Your task to perform on an android device: check battery use Image 0: 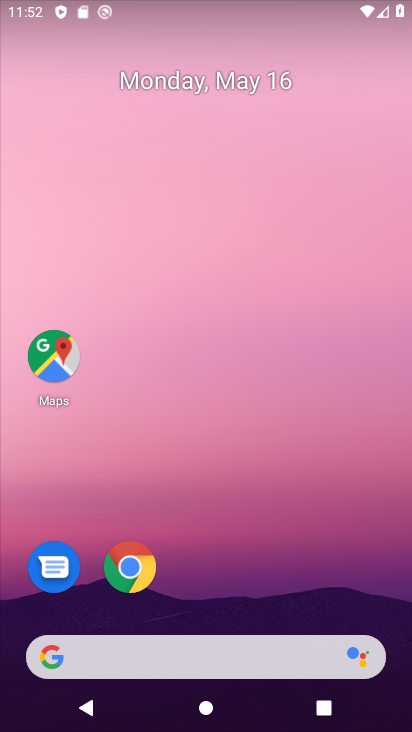
Step 0: drag from (172, 645) to (301, 110)
Your task to perform on an android device: check battery use Image 1: 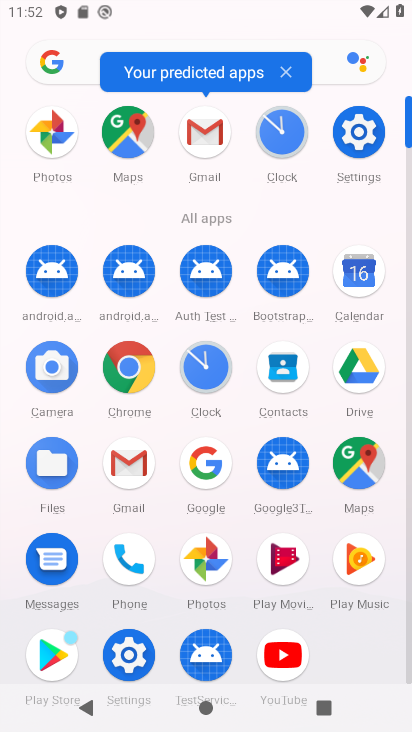
Step 1: click (370, 136)
Your task to perform on an android device: check battery use Image 2: 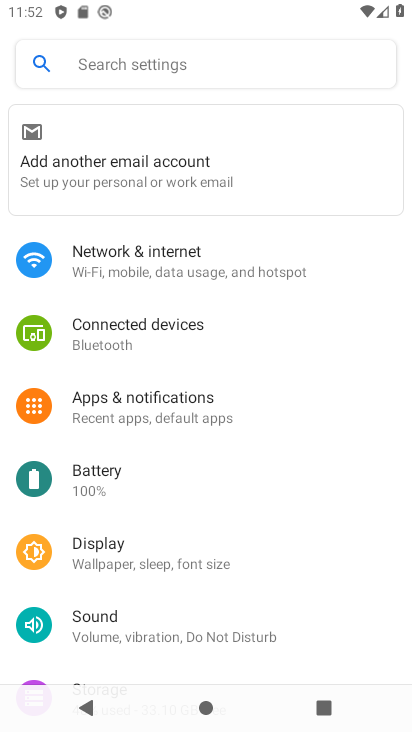
Step 2: click (105, 473)
Your task to perform on an android device: check battery use Image 3: 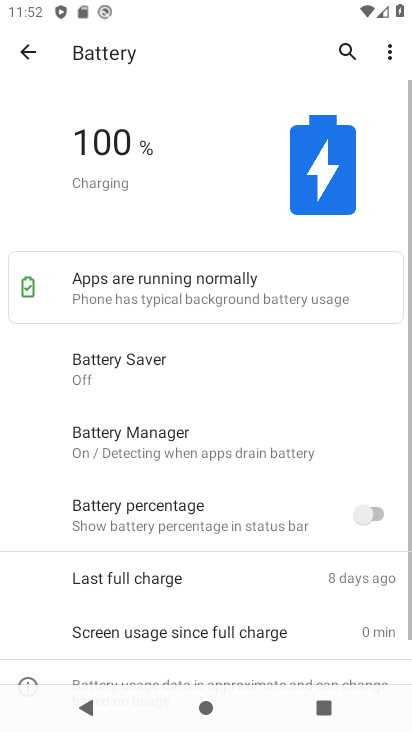
Step 3: click (388, 51)
Your task to perform on an android device: check battery use Image 4: 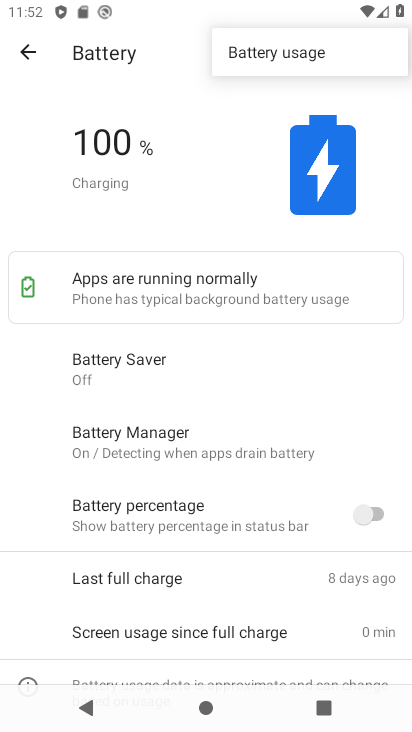
Step 4: click (299, 51)
Your task to perform on an android device: check battery use Image 5: 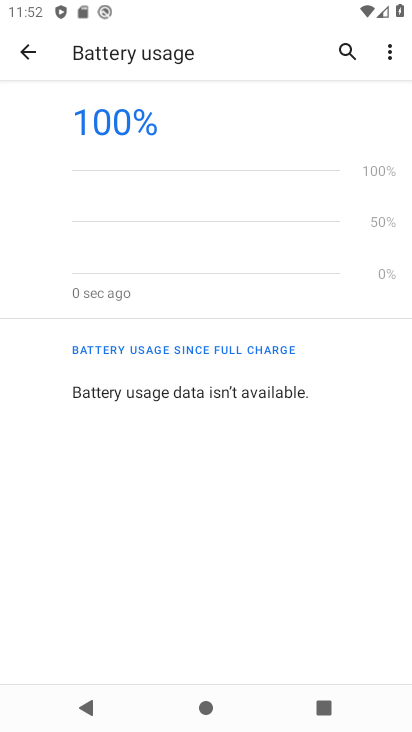
Step 5: task complete